Your task to perform on an android device: Open display settings Image 0: 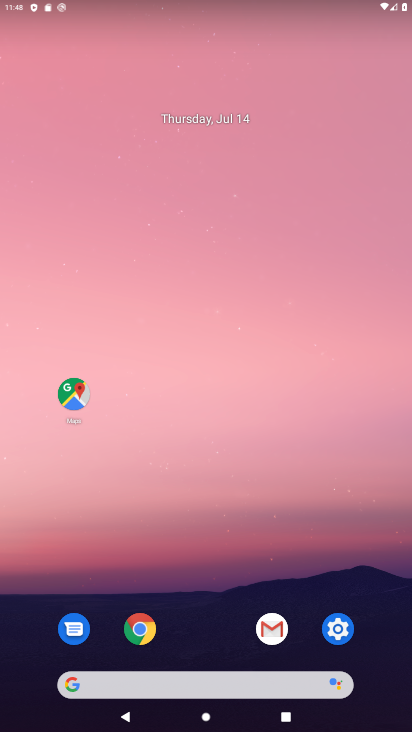
Step 0: click (344, 632)
Your task to perform on an android device: Open display settings Image 1: 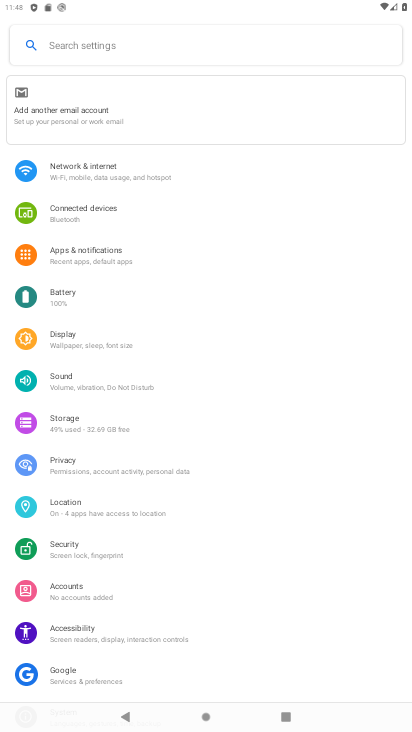
Step 1: click (84, 340)
Your task to perform on an android device: Open display settings Image 2: 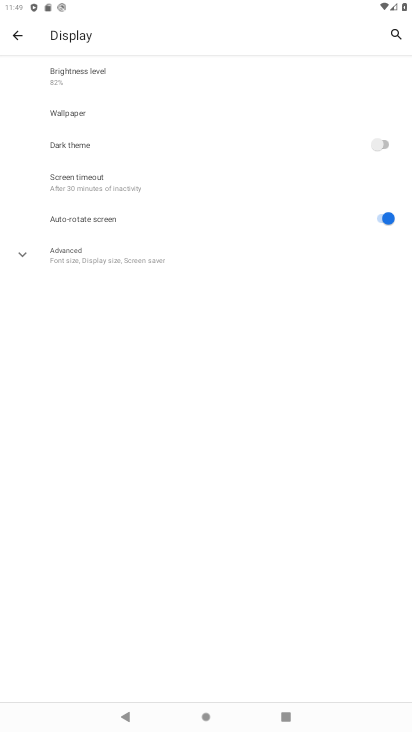
Step 2: task complete